Your task to perform on an android device: check the backup settings in the google photos Image 0: 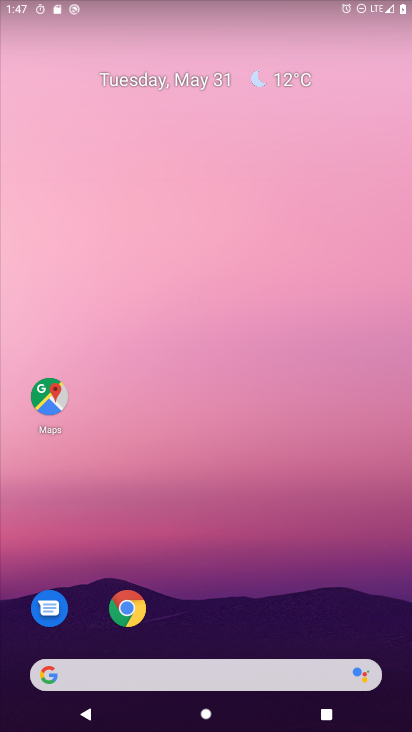
Step 0: drag from (306, 668) to (317, 1)
Your task to perform on an android device: check the backup settings in the google photos Image 1: 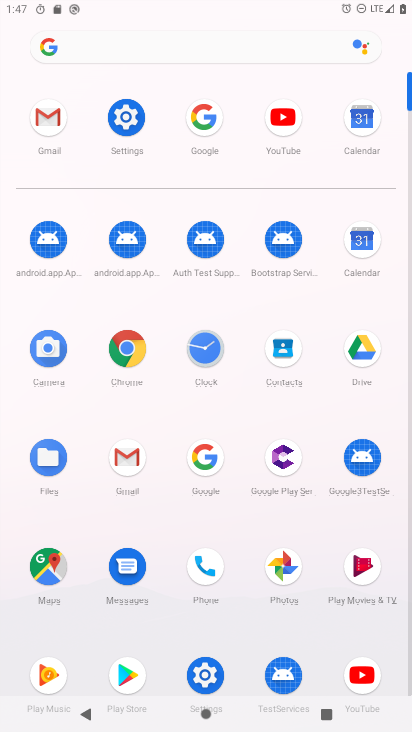
Step 1: click (275, 562)
Your task to perform on an android device: check the backup settings in the google photos Image 2: 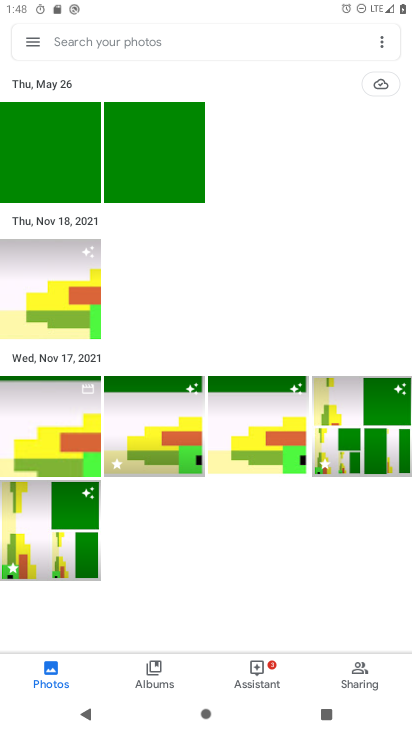
Step 2: click (28, 39)
Your task to perform on an android device: check the backup settings in the google photos Image 3: 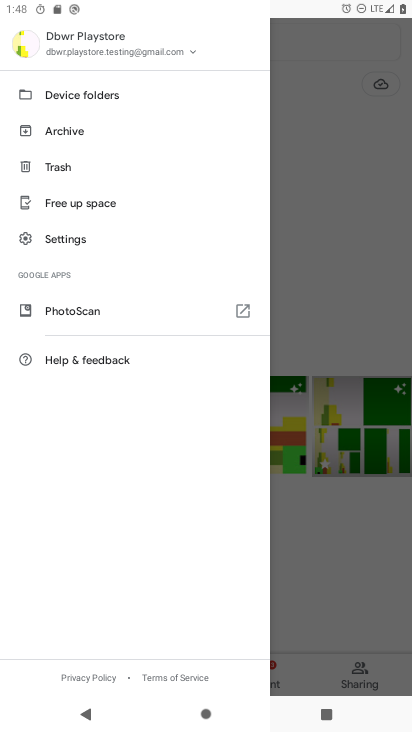
Step 3: click (57, 237)
Your task to perform on an android device: check the backup settings in the google photos Image 4: 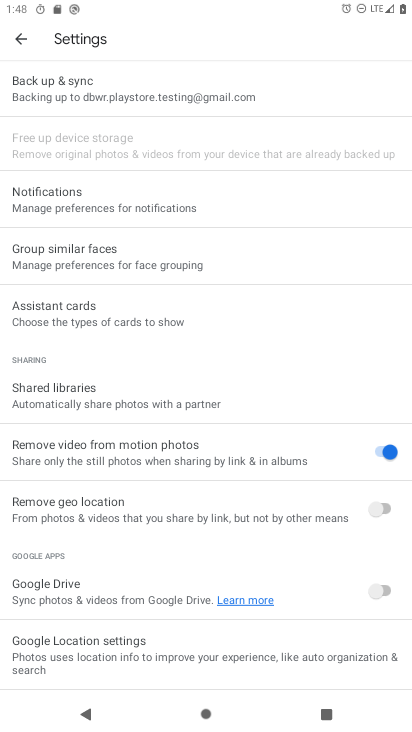
Step 4: click (63, 103)
Your task to perform on an android device: check the backup settings in the google photos Image 5: 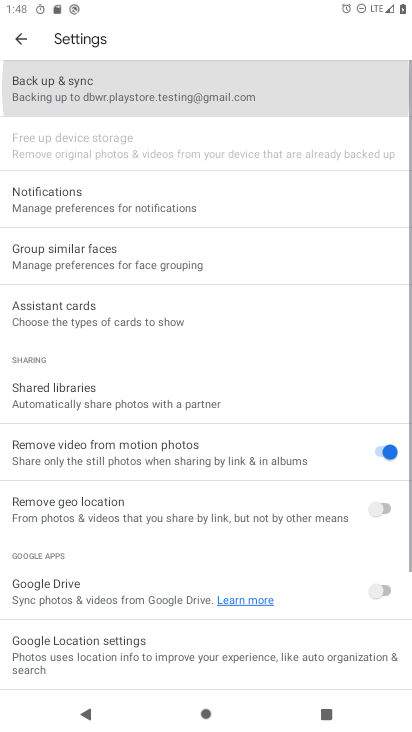
Step 5: click (63, 103)
Your task to perform on an android device: check the backup settings in the google photos Image 6: 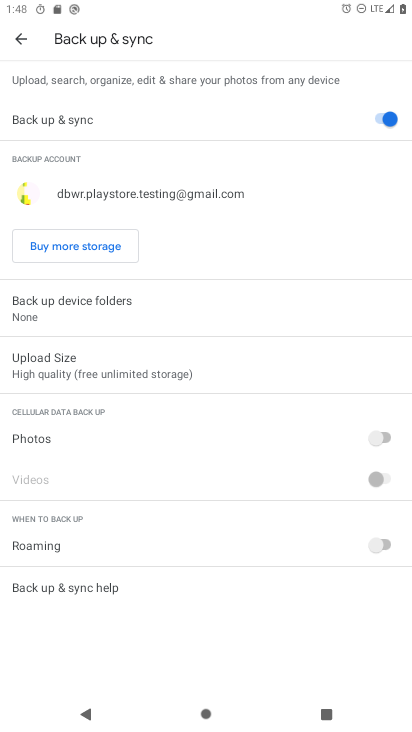
Step 6: task complete